Your task to perform on an android device: turn on translation in the chrome app Image 0: 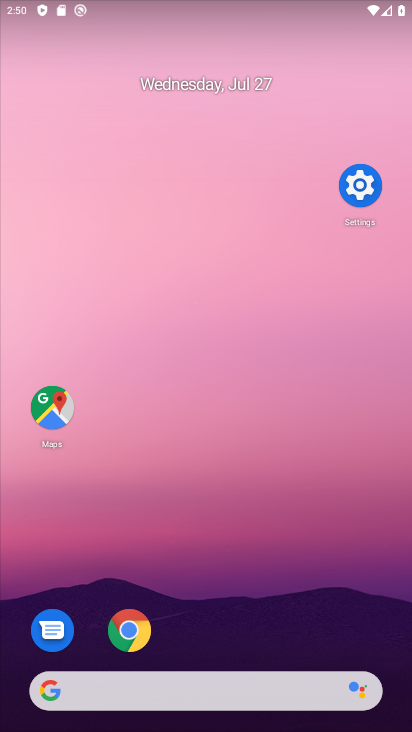
Step 0: press home button
Your task to perform on an android device: turn on translation in the chrome app Image 1: 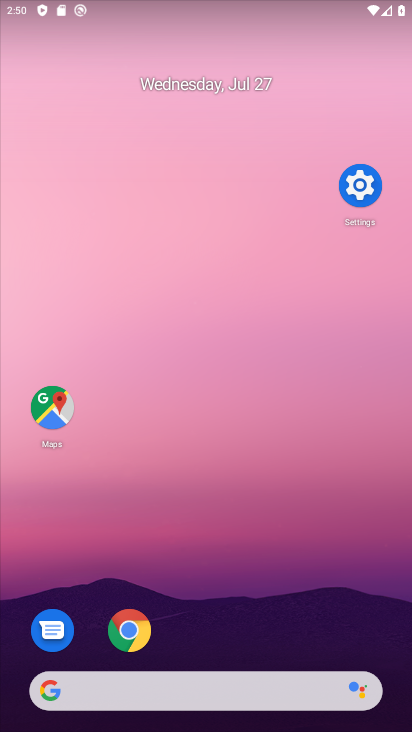
Step 1: drag from (188, 620) to (52, 30)
Your task to perform on an android device: turn on translation in the chrome app Image 2: 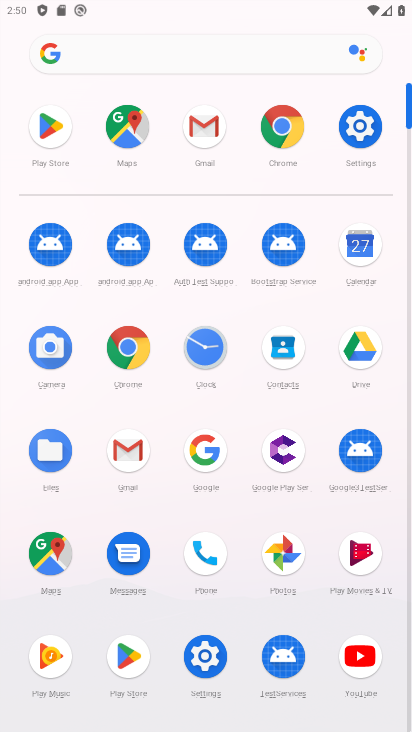
Step 2: click (285, 130)
Your task to perform on an android device: turn on translation in the chrome app Image 3: 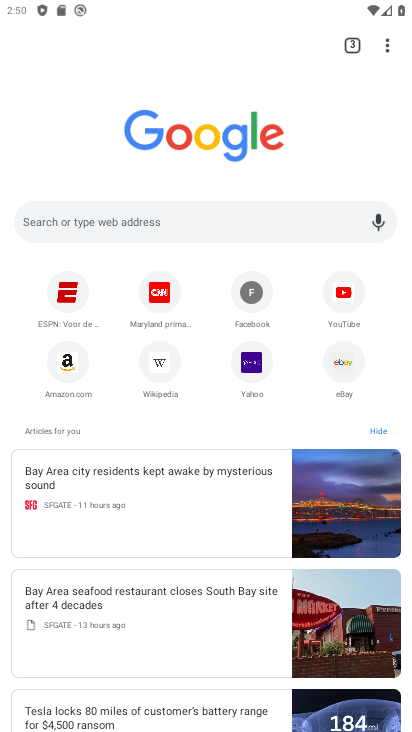
Step 3: drag from (389, 47) to (247, 428)
Your task to perform on an android device: turn on translation in the chrome app Image 4: 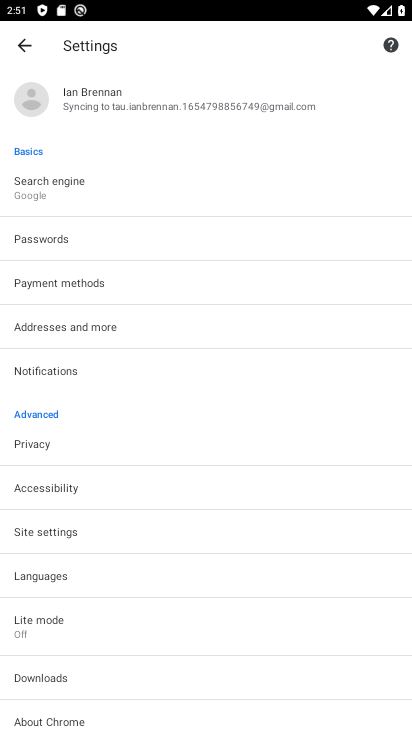
Step 4: click (47, 575)
Your task to perform on an android device: turn on translation in the chrome app Image 5: 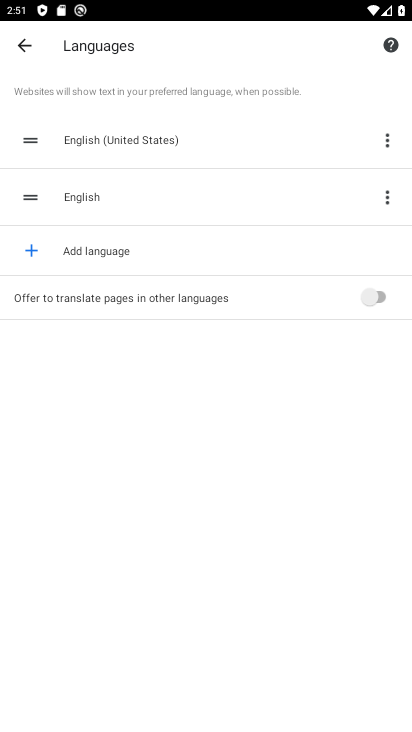
Step 5: click (370, 301)
Your task to perform on an android device: turn on translation in the chrome app Image 6: 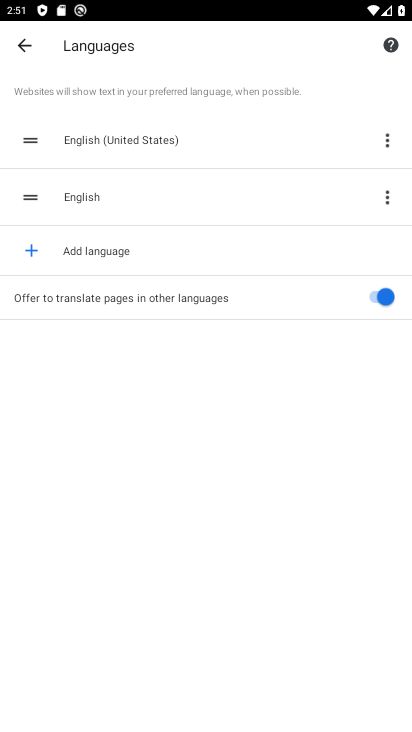
Step 6: task complete